Your task to perform on an android device: Play the last video I watched on Youtube Image 0: 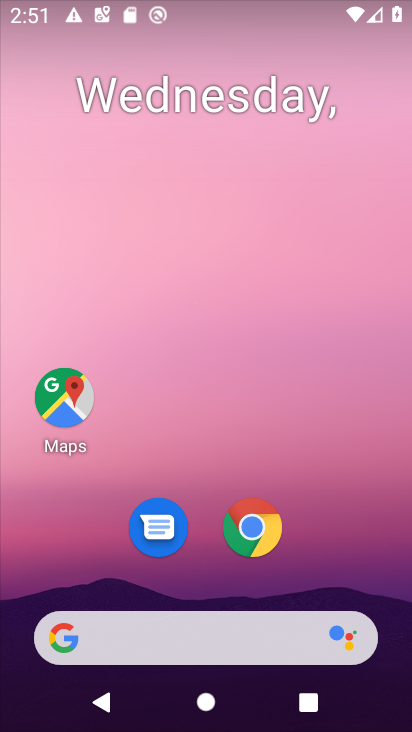
Step 0: drag from (328, 462) to (331, 123)
Your task to perform on an android device: Play the last video I watched on Youtube Image 1: 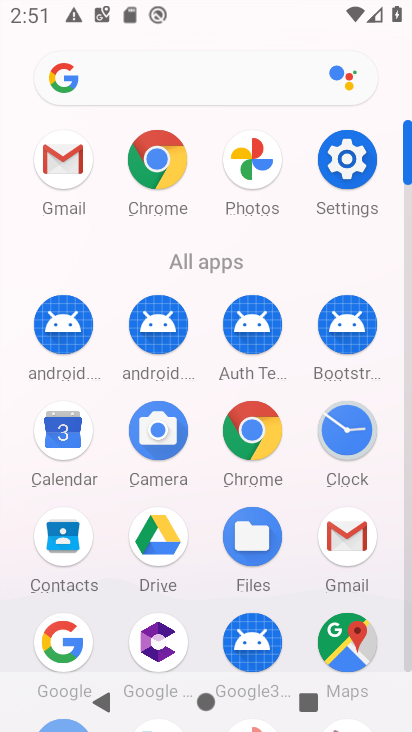
Step 1: drag from (198, 590) to (211, 314)
Your task to perform on an android device: Play the last video I watched on Youtube Image 2: 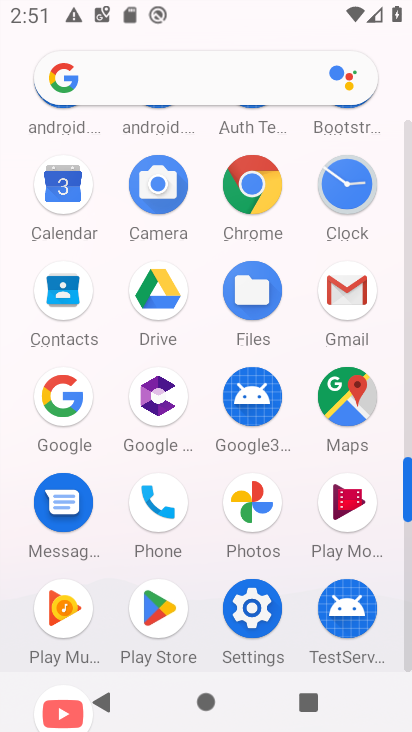
Step 2: drag from (107, 574) to (126, 361)
Your task to perform on an android device: Play the last video I watched on Youtube Image 3: 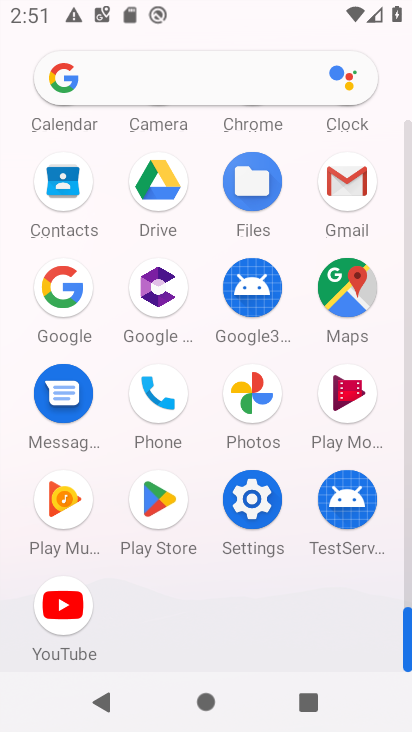
Step 3: click (60, 599)
Your task to perform on an android device: Play the last video I watched on Youtube Image 4: 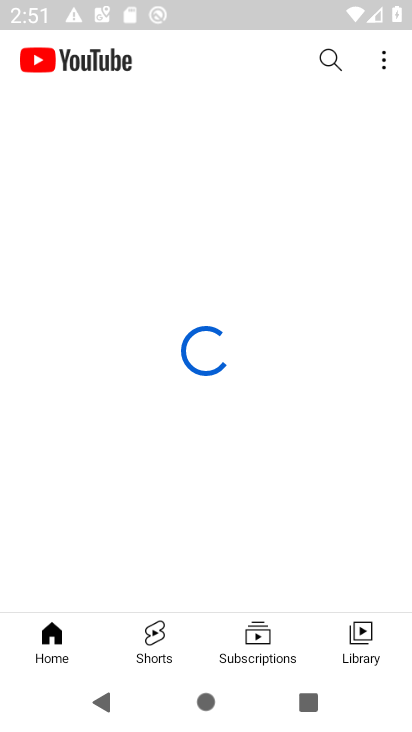
Step 4: click (371, 638)
Your task to perform on an android device: Play the last video I watched on Youtube Image 5: 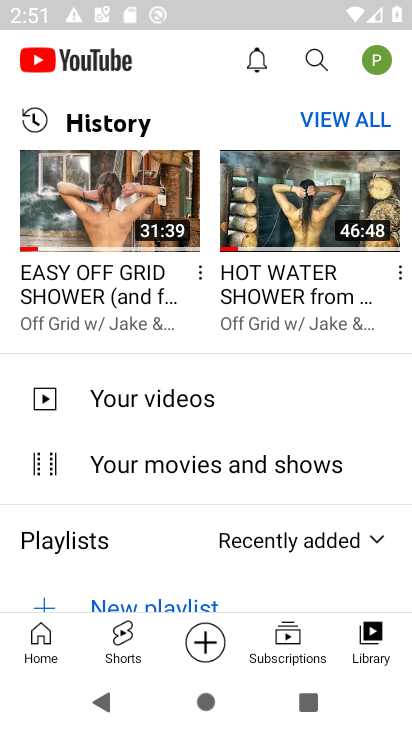
Step 5: click (97, 205)
Your task to perform on an android device: Play the last video I watched on Youtube Image 6: 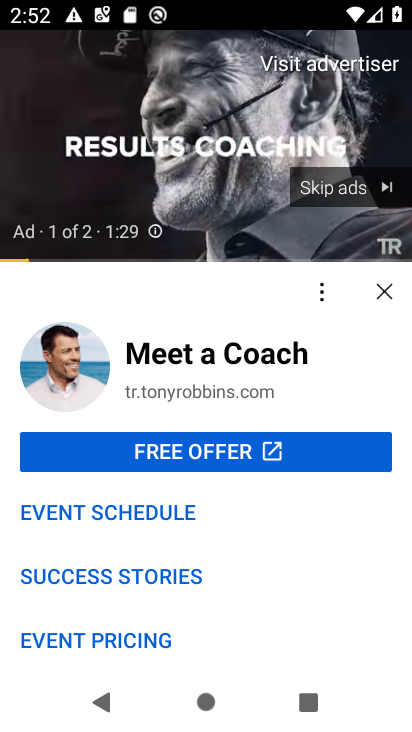
Step 6: click (351, 182)
Your task to perform on an android device: Play the last video I watched on Youtube Image 7: 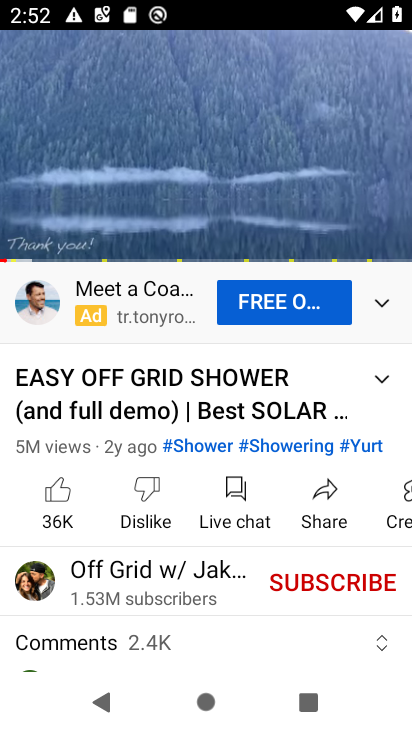
Step 7: task complete